Your task to perform on an android device: Open Google Maps Image 0: 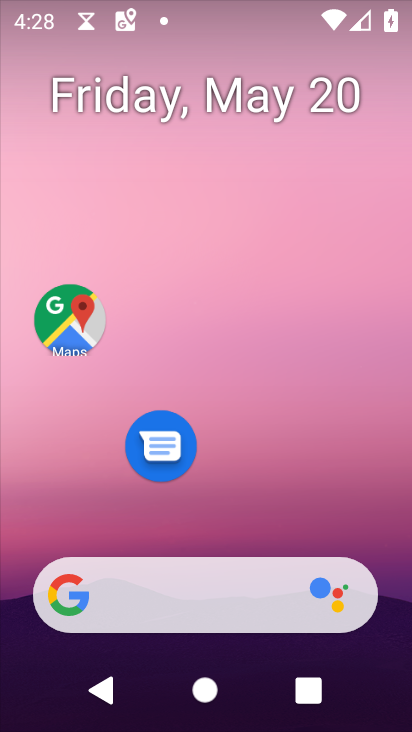
Step 0: click (88, 313)
Your task to perform on an android device: Open Google Maps Image 1: 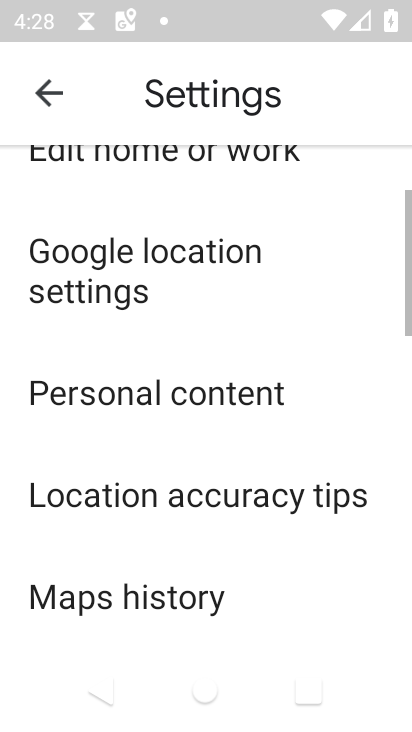
Step 1: drag from (156, 282) to (156, 570)
Your task to perform on an android device: Open Google Maps Image 2: 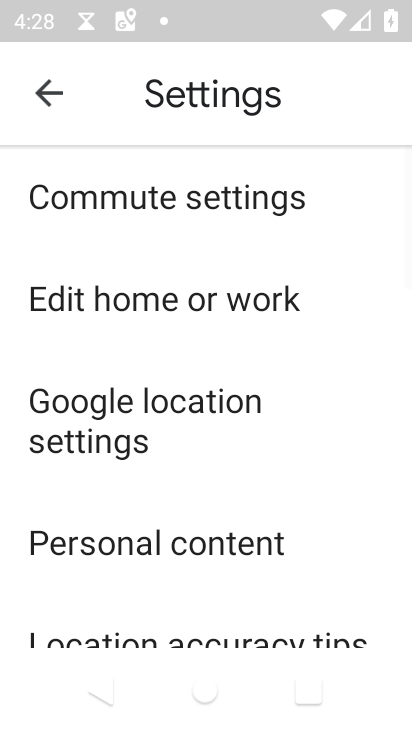
Step 2: click (54, 79)
Your task to perform on an android device: Open Google Maps Image 3: 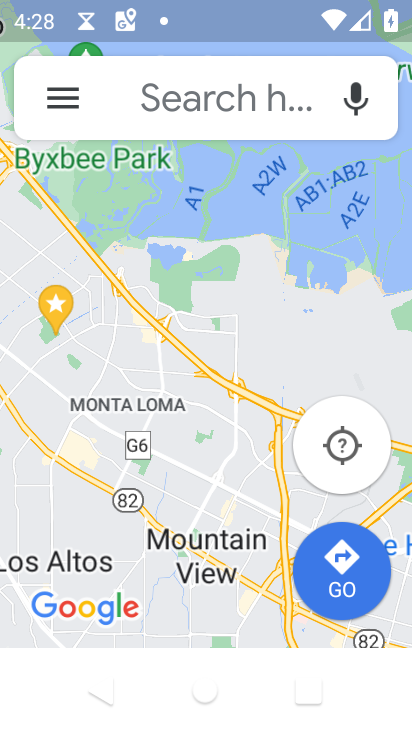
Step 3: task complete